Your task to perform on an android device: turn on sleep mode Image 0: 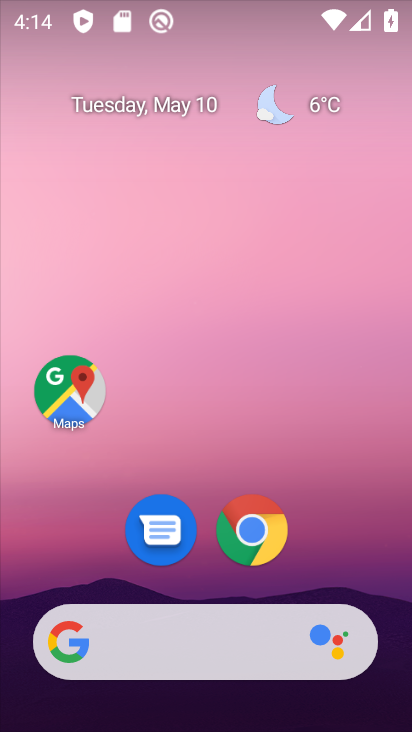
Step 0: drag from (329, 572) to (333, 217)
Your task to perform on an android device: turn on sleep mode Image 1: 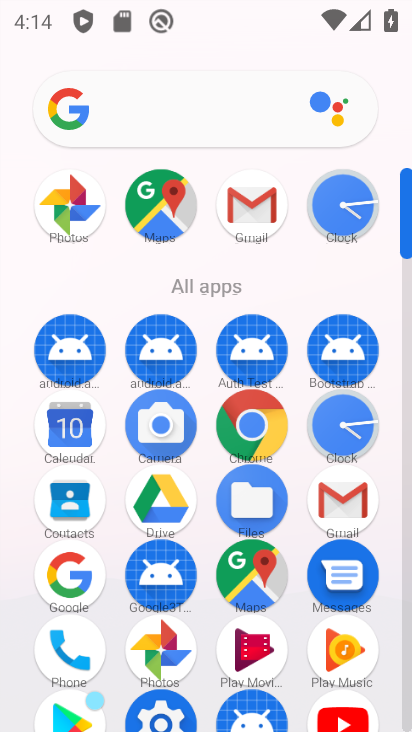
Step 1: press home button
Your task to perform on an android device: turn on sleep mode Image 2: 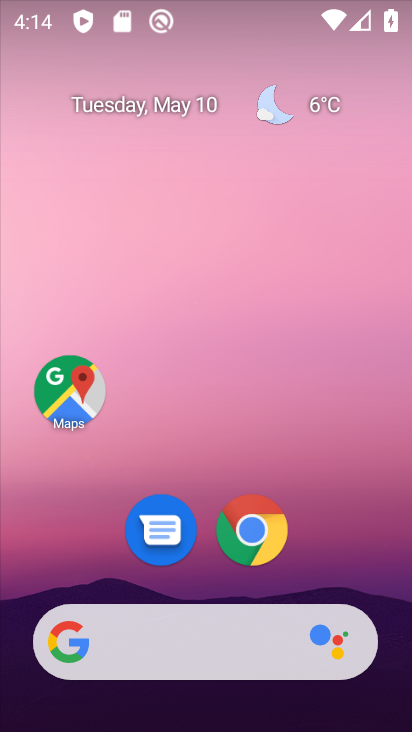
Step 2: drag from (361, 585) to (345, 78)
Your task to perform on an android device: turn on sleep mode Image 3: 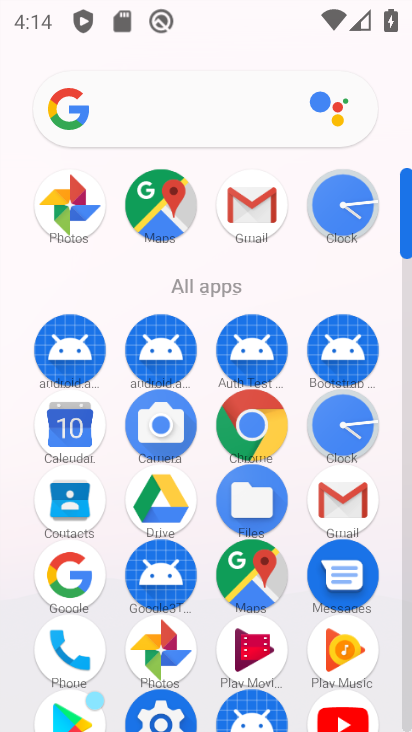
Step 3: click (175, 716)
Your task to perform on an android device: turn on sleep mode Image 4: 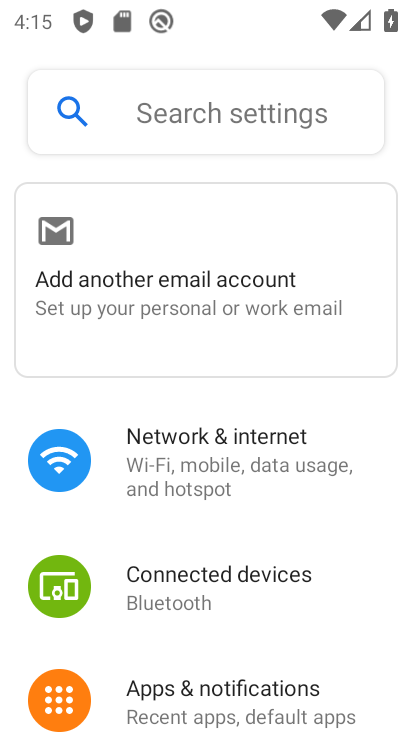
Step 4: drag from (322, 653) to (319, 181)
Your task to perform on an android device: turn on sleep mode Image 5: 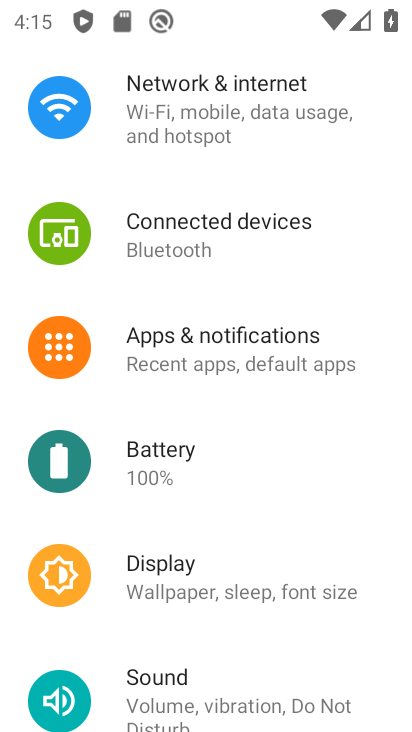
Step 5: click (301, 567)
Your task to perform on an android device: turn on sleep mode Image 6: 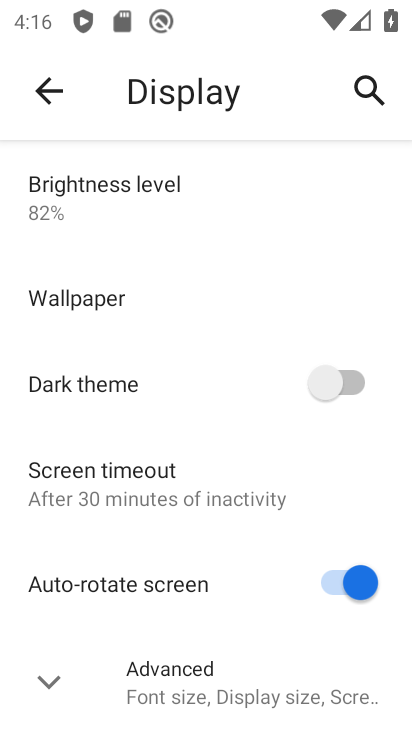
Step 6: task complete